Your task to perform on an android device: Open network settings Image 0: 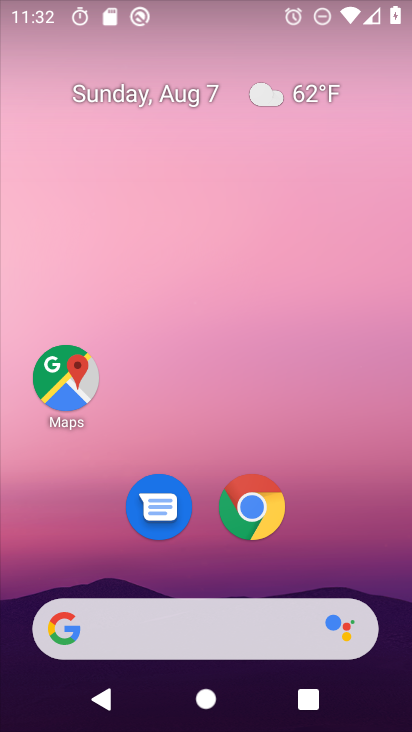
Step 0: drag from (331, 428) to (268, 55)
Your task to perform on an android device: Open network settings Image 1: 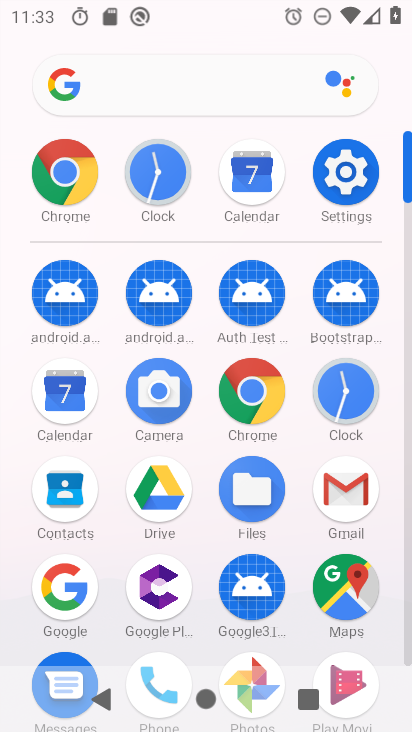
Step 1: click (351, 177)
Your task to perform on an android device: Open network settings Image 2: 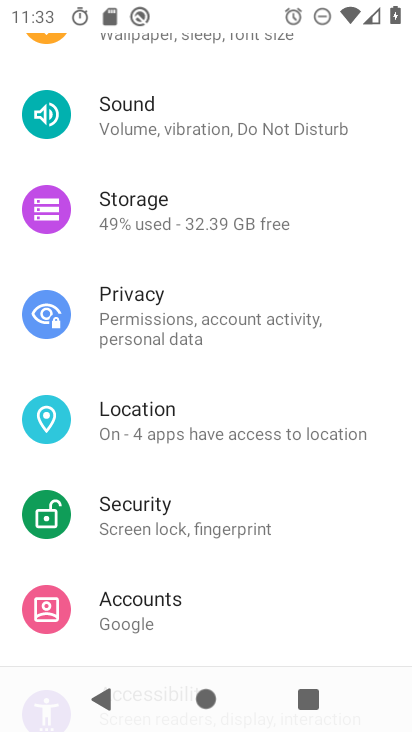
Step 2: drag from (214, 156) to (322, 570)
Your task to perform on an android device: Open network settings Image 3: 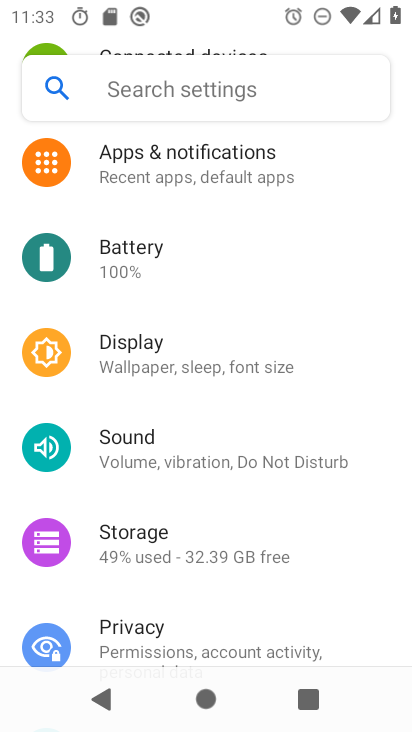
Step 3: drag from (226, 263) to (318, 661)
Your task to perform on an android device: Open network settings Image 4: 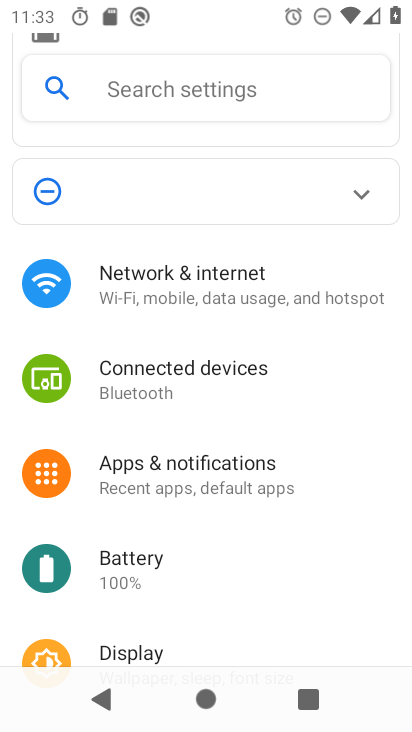
Step 4: click (188, 287)
Your task to perform on an android device: Open network settings Image 5: 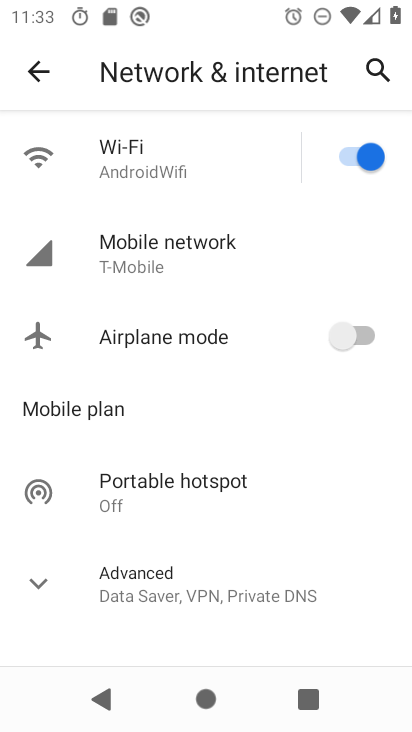
Step 5: task complete